Your task to perform on an android device: change text size in settings app Image 0: 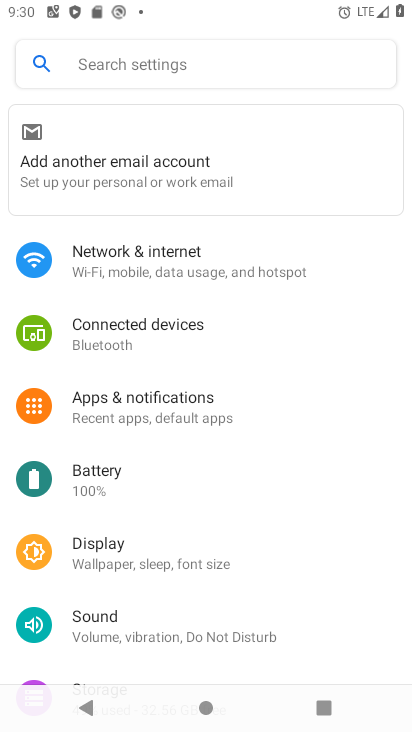
Step 0: click (211, 559)
Your task to perform on an android device: change text size in settings app Image 1: 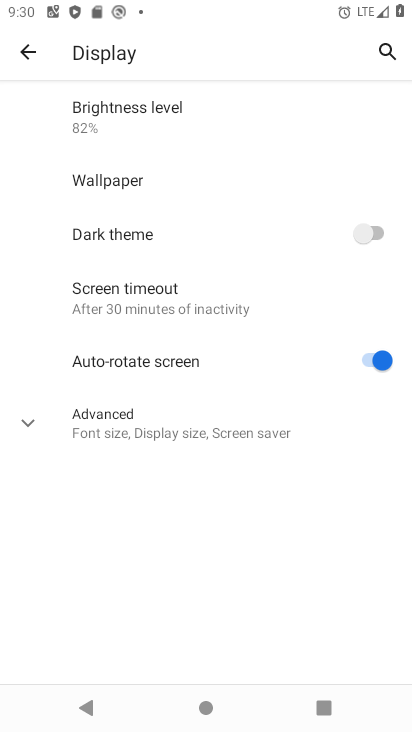
Step 1: click (143, 423)
Your task to perform on an android device: change text size in settings app Image 2: 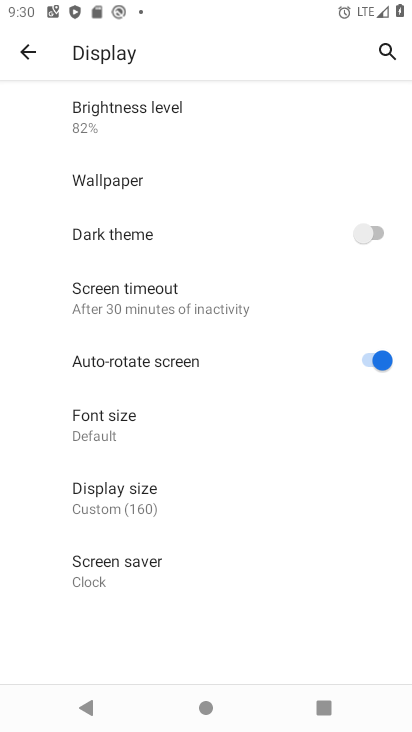
Step 2: click (136, 433)
Your task to perform on an android device: change text size in settings app Image 3: 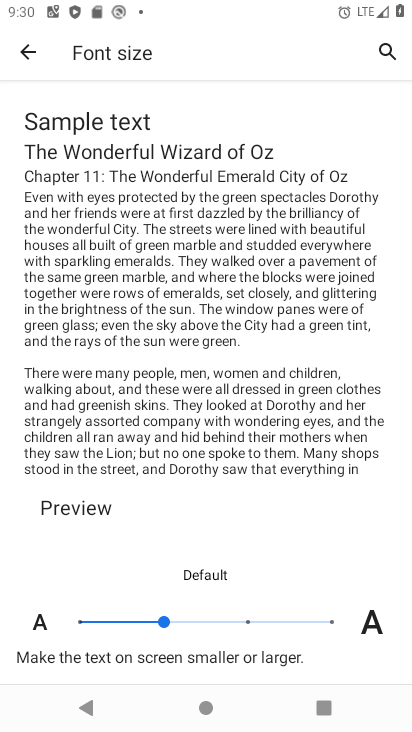
Step 3: click (79, 619)
Your task to perform on an android device: change text size in settings app Image 4: 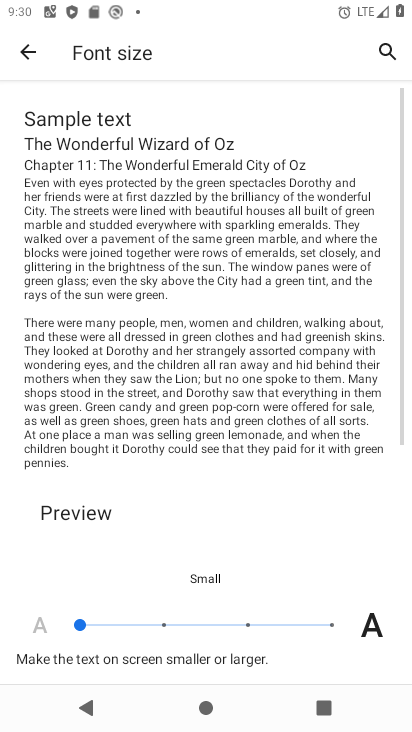
Step 4: task complete